Your task to perform on an android device: Do I have any events today? Image 0: 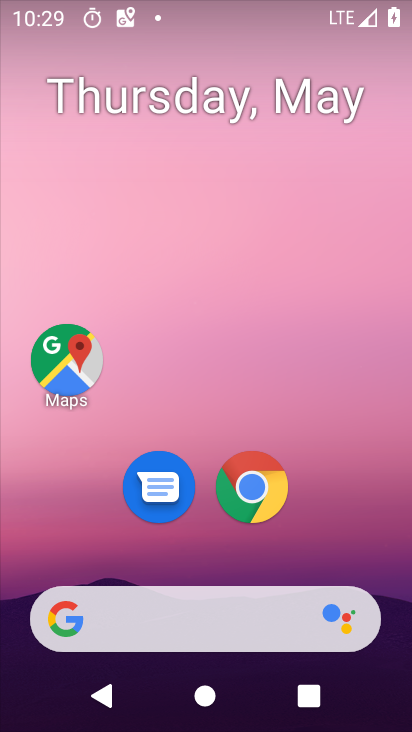
Step 0: drag from (204, 606) to (230, 118)
Your task to perform on an android device: Do I have any events today? Image 1: 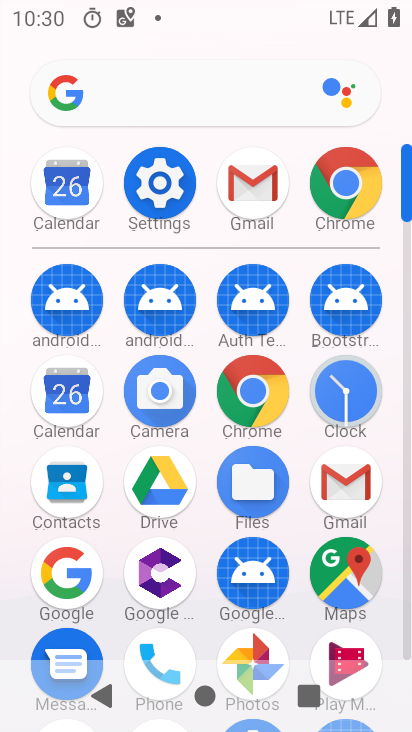
Step 1: click (81, 401)
Your task to perform on an android device: Do I have any events today? Image 2: 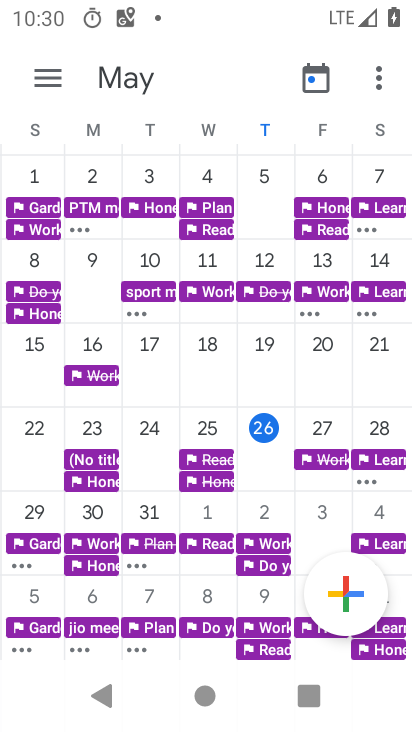
Step 2: click (269, 466)
Your task to perform on an android device: Do I have any events today? Image 3: 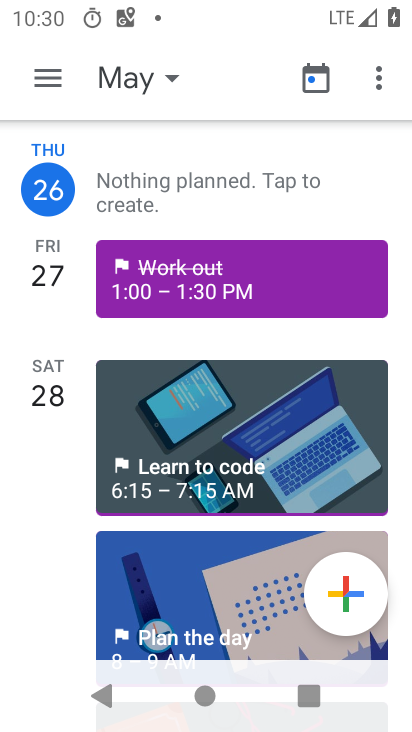
Step 3: task complete